Your task to perform on an android device: Open sound settings Image 0: 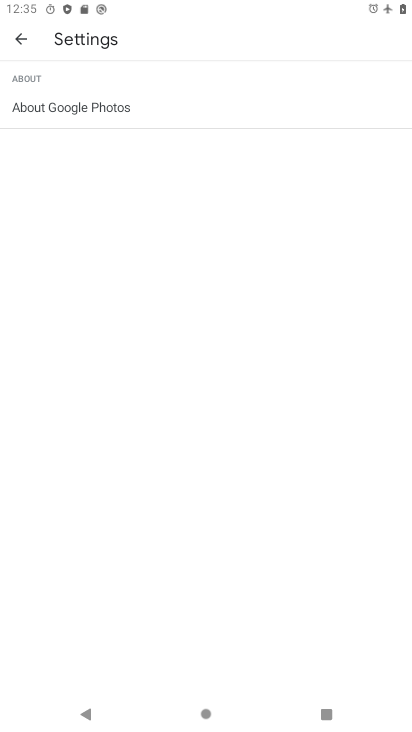
Step 0: press back button
Your task to perform on an android device: Open sound settings Image 1: 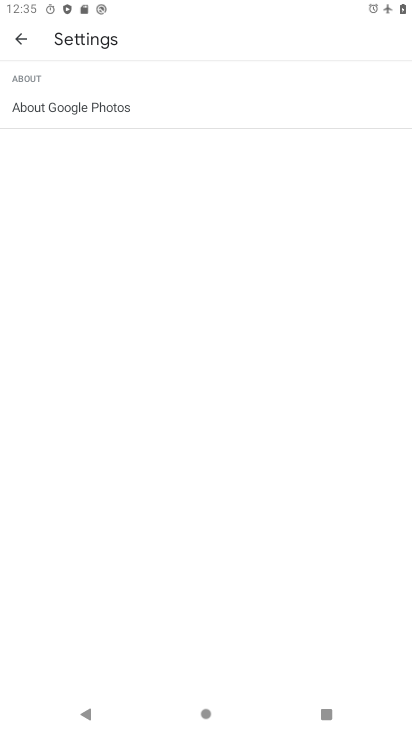
Step 1: press home button
Your task to perform on an android device: Open sound settings Image 2: 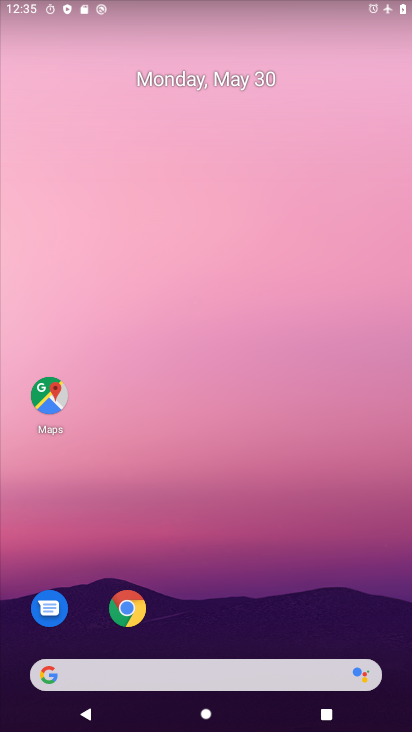
Step 2: drag from (195, 642) to (104, 69)
Your task to perform on an android device: Open sound settings Image 3: 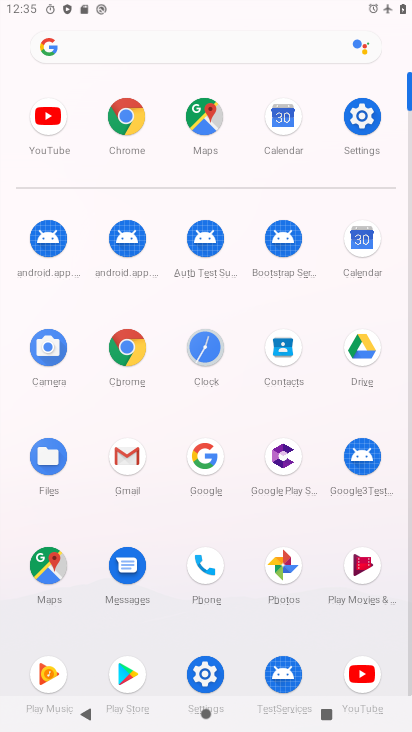
Step 3: click (209, 674)
Your task to perform on an android device: Open sound settings Image 4: 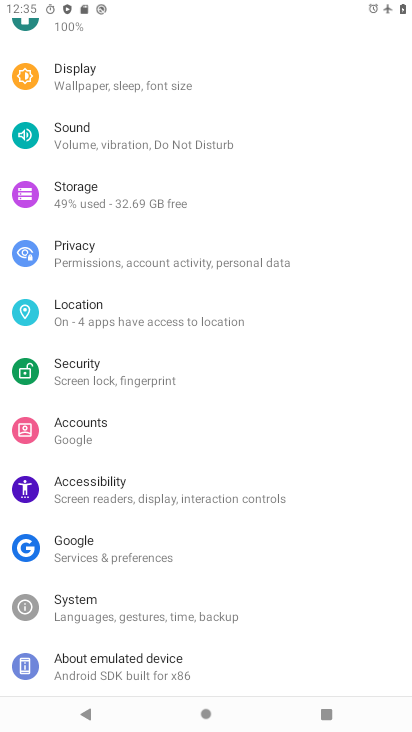
Step 4: click (29, 118)
Your task to perform on an android device: Open sound settings Image 5: 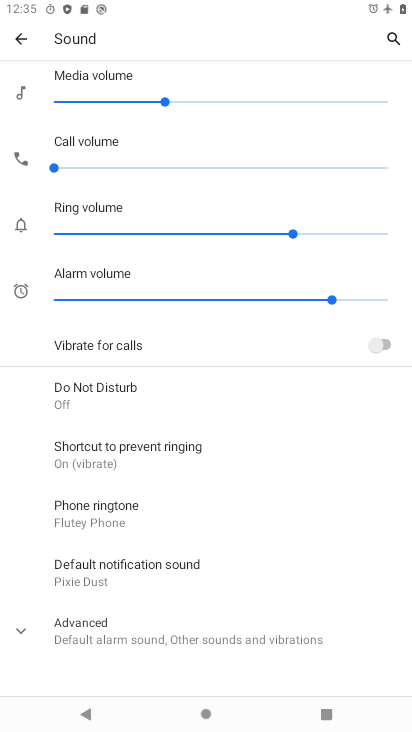
Step 5: task complete